Your task to perform on an android device: turn on priority inbox in the gmail app Image 0: 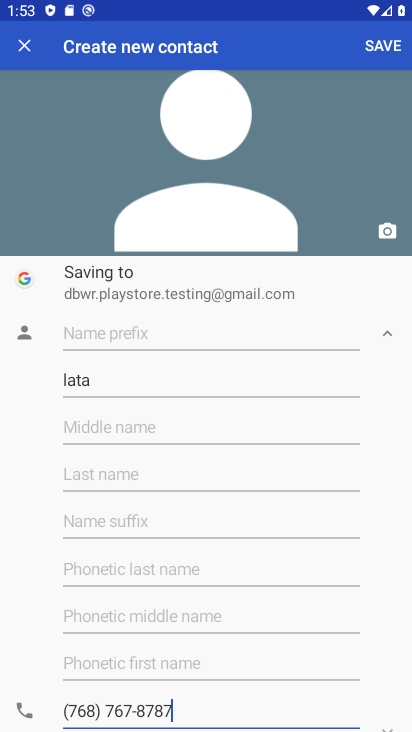
Step 0: press home button
Your task to perform on an android device: turn on priority inbox in the gmail app Image 1: 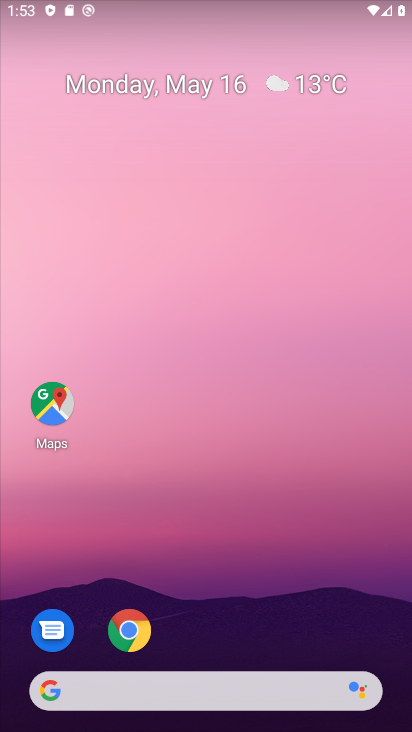
Step 1: drag from (281, 496) to (357, 140)
Your task to perform on an android device: turn on priority inbox in the gmail app Image 2: 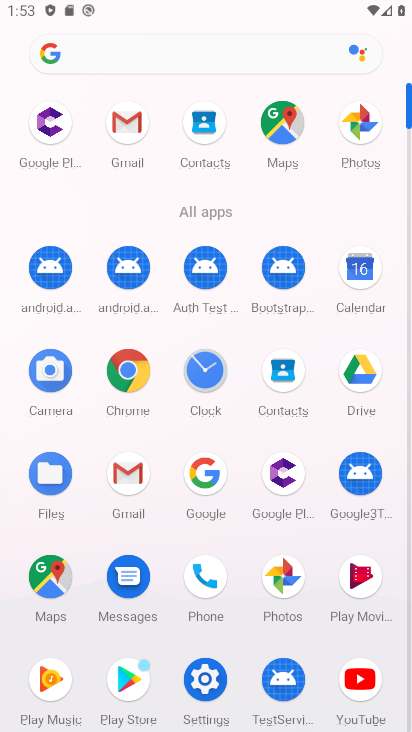
Step 2: click (121, 117)
Your task to perform on an android device: turn on priority inbox in the gmail app Image 3: 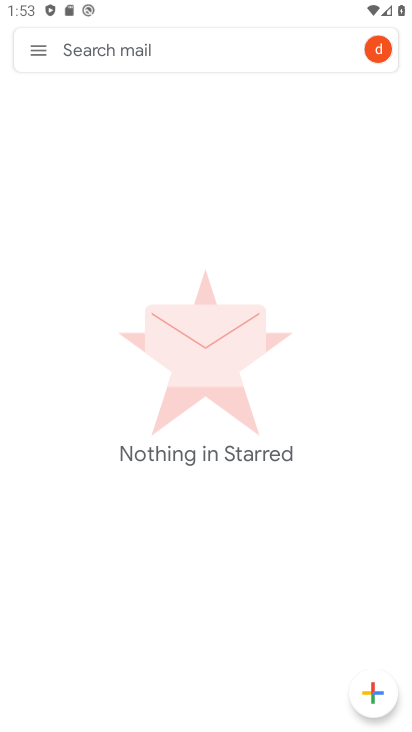
Step 3: click (43, 53)
Your task to perform on an android device: turn on priority inbox in the gmail app Image 4: 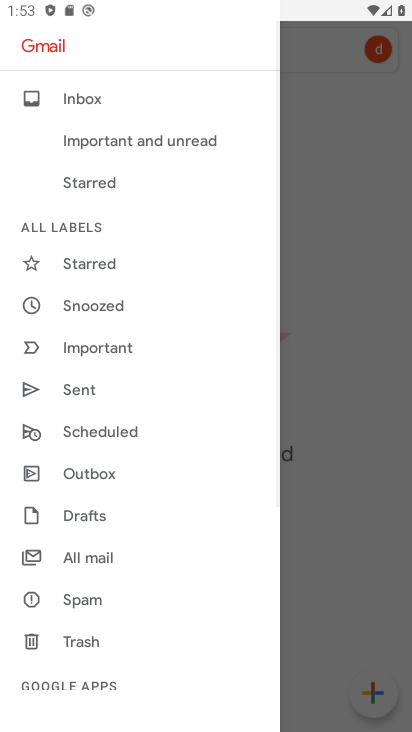
Step 4: drag from (123, 580) to (99, 176)
Your task to perform on an android device: turn on priority inbox in the gmail app Image 5: 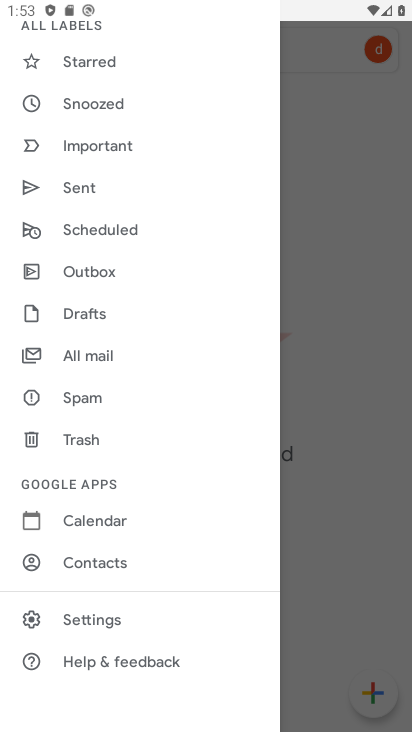
Step 5: click (70, 619)
Your task to perform on an android device: turn on priority inbox in the gmail app Image 6: 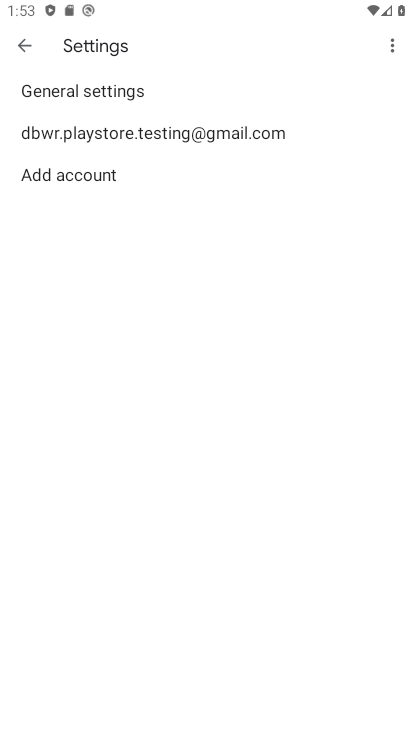
Step 6: click (199, 134)
Your task to perform on an android device: turn on priority inbox in the gmail app Image 7: 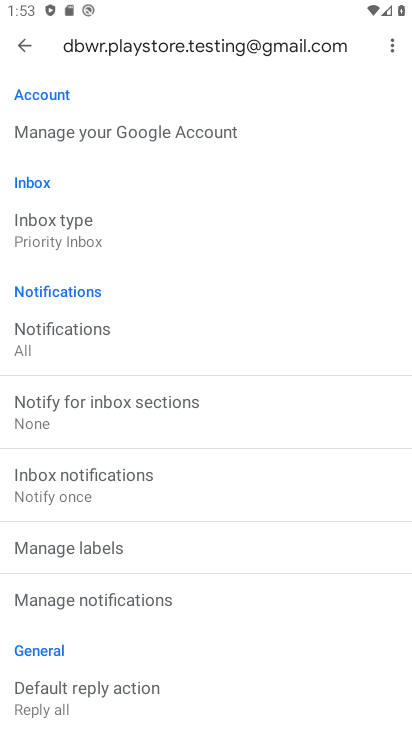
Step 7: click (125, 231)
Your task to perform on an android device: turn on priority inbox in the gmail app Image 8: 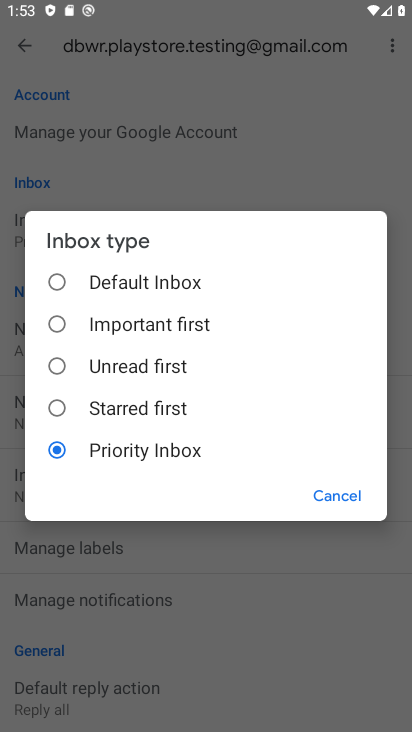
Step 8: task complete